Your task to perform on an android device: install app "DoorDash - Food Delivery" Image 0: 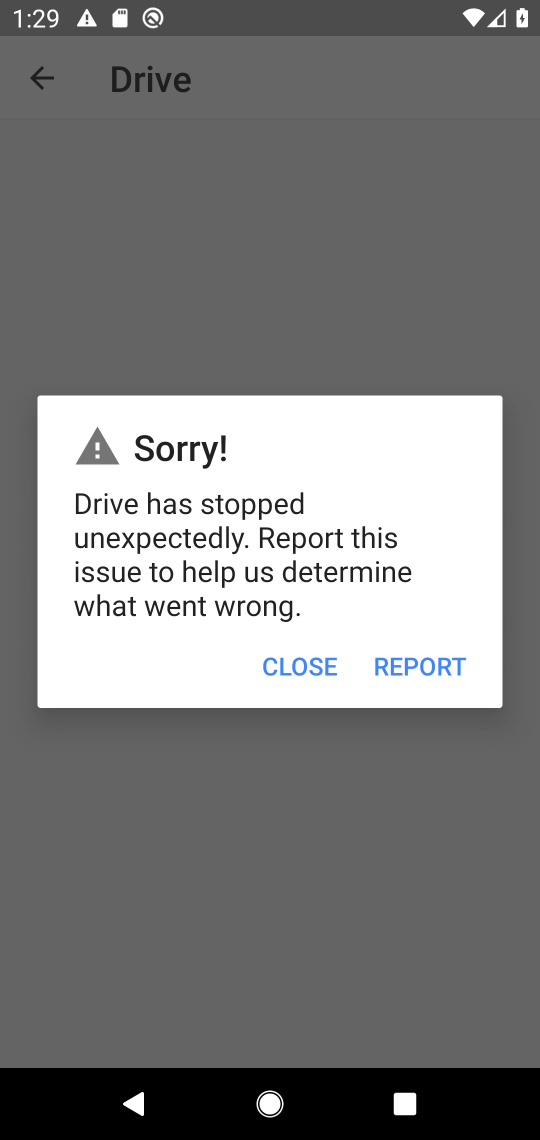
Step 0: press back button
Your task to perform on an android device: install app "DoorDash - Food Delivery" Image 1: 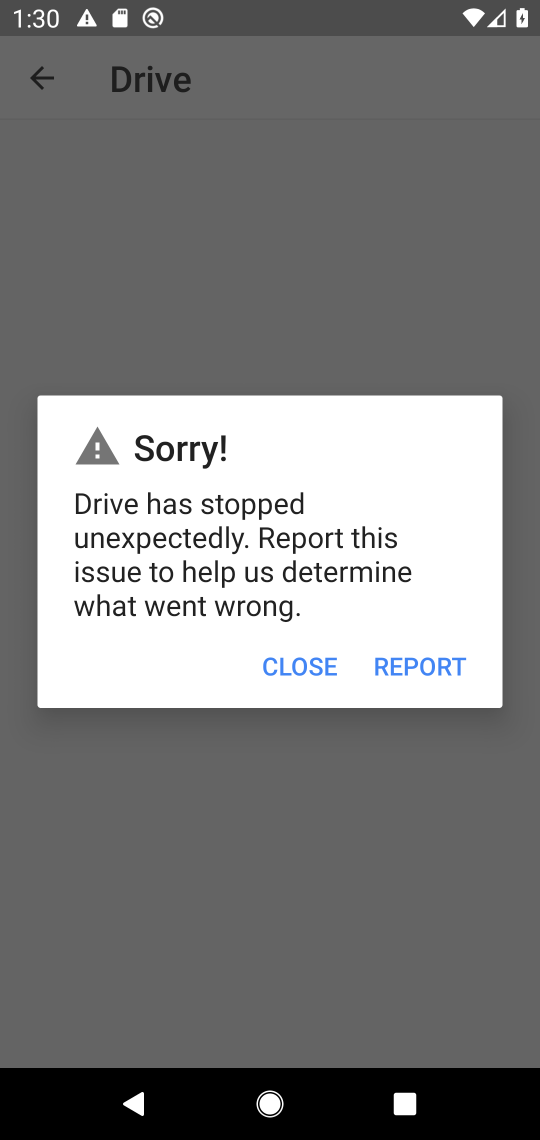
Step 1: press back button
Your task to perform on an android device: install app "DoorDash - Food Delivery" Image 2: 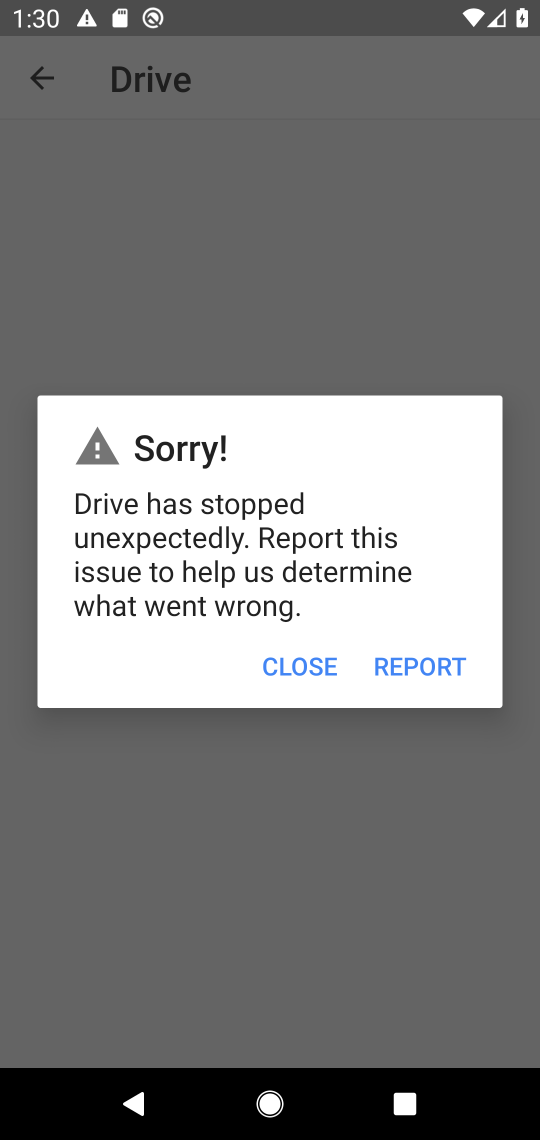
Step 2: press home button
Your task to perform on an android device: install app "DoorDash - Food Delivery" Image 3: 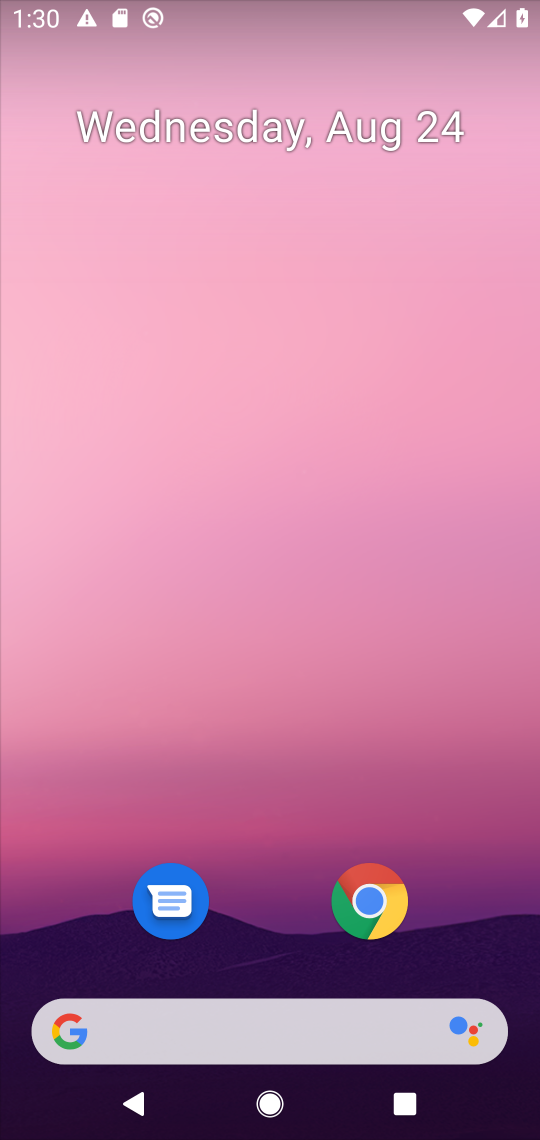
Step 3: drag from (274, 893) to (438, 22)
Your task to perform on an android device: install app "DoorDash - Food Delivery" Image 4: 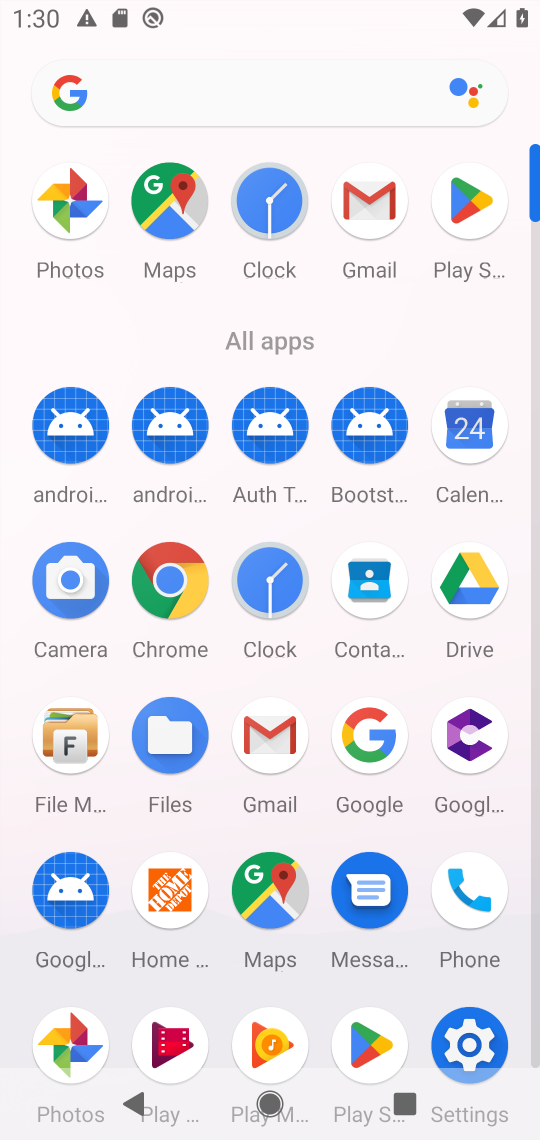
Step 4: click (469, 208)
Your task to perform on an android device: install app "DoorDash - Food Delivery" Image 5: 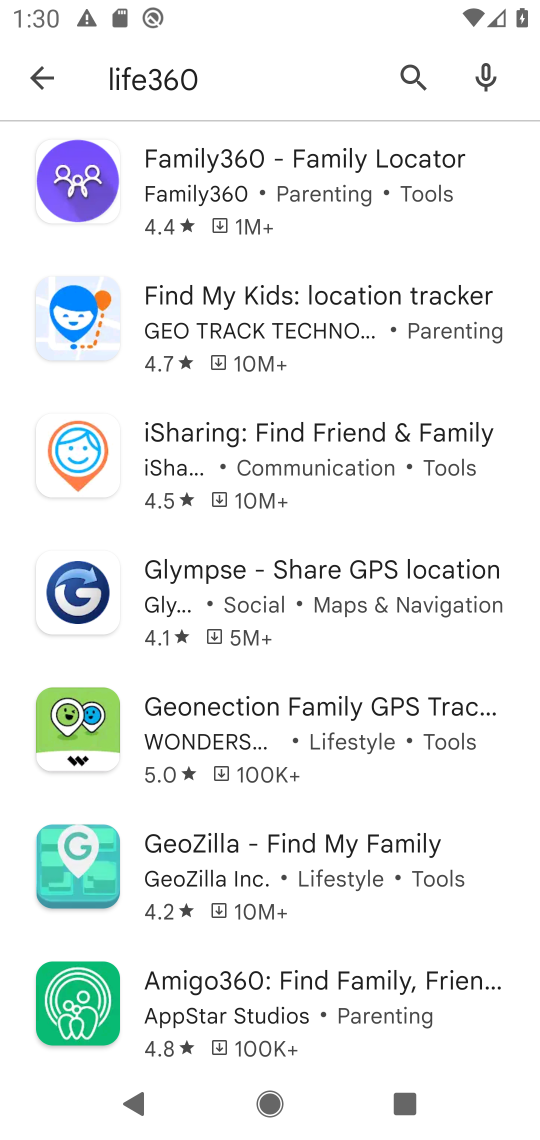
Step 5: click (410, 69)
Your task to perform on an android device: install app "DoorDash - Food Delivery" Image 6: 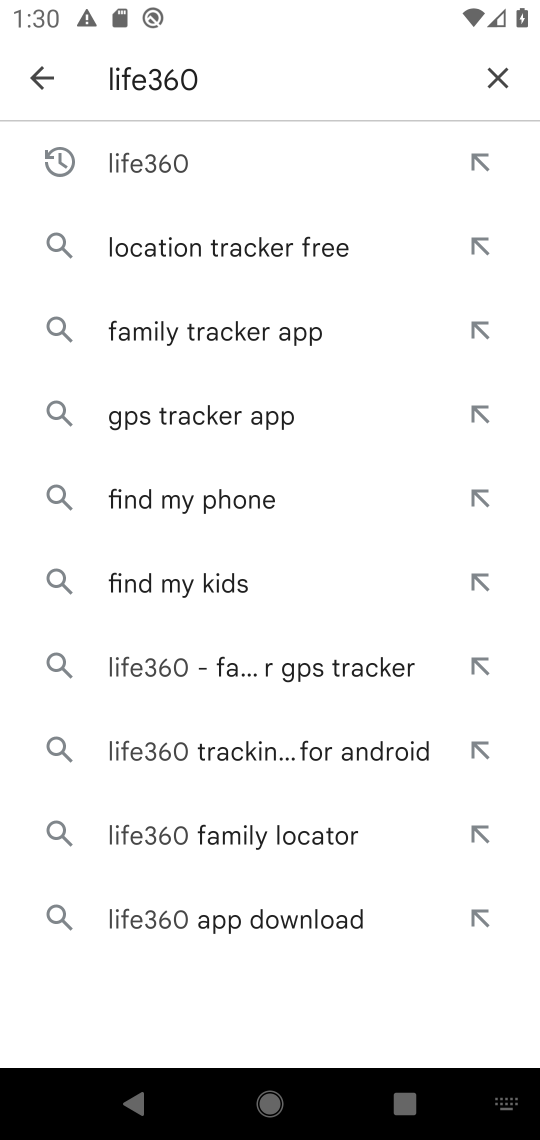
Step 6: click (495, 67)
Your task to perform on an android device: install app "DoorDash - Food Delivery" Image 7: 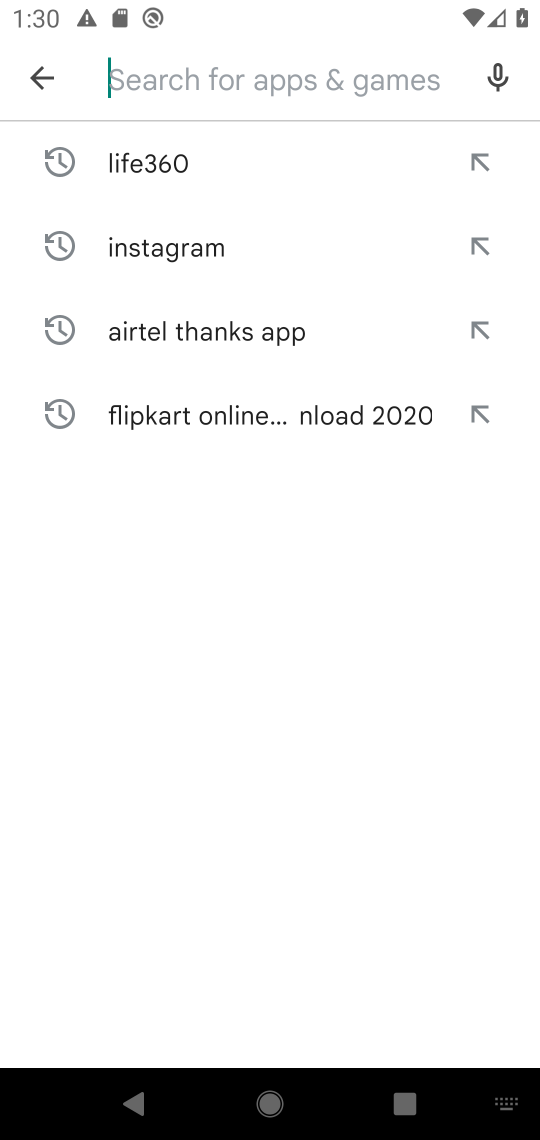
Step 7: click (159, 82)
Your task to perform on an android device: install app "DoorDash - Food Delivery" Image 8: 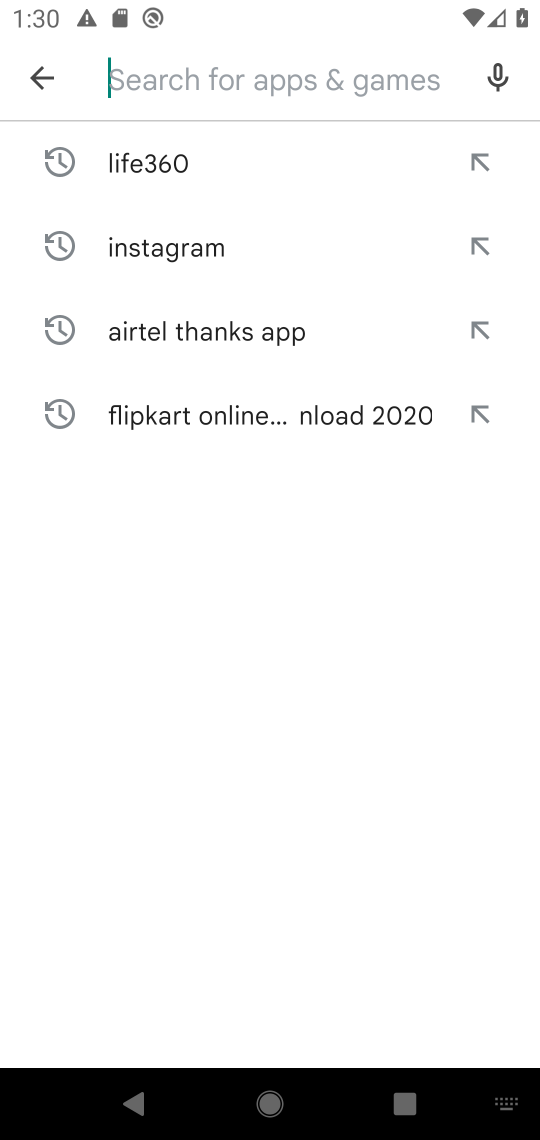
Step 8: type "DoorDash"
Your task to perform on an android device: install app "DoorDash - Food Delivery" Image 9: 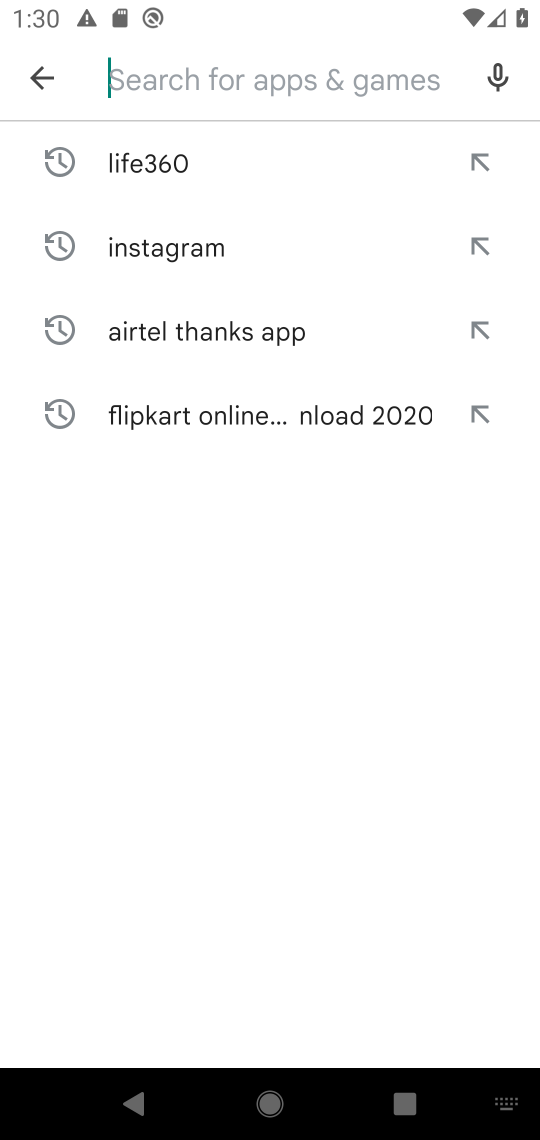
Step 9: click (117, 766)
Your task to perform on an android device: install app "DoorDash - Food Delivery" Image 10: 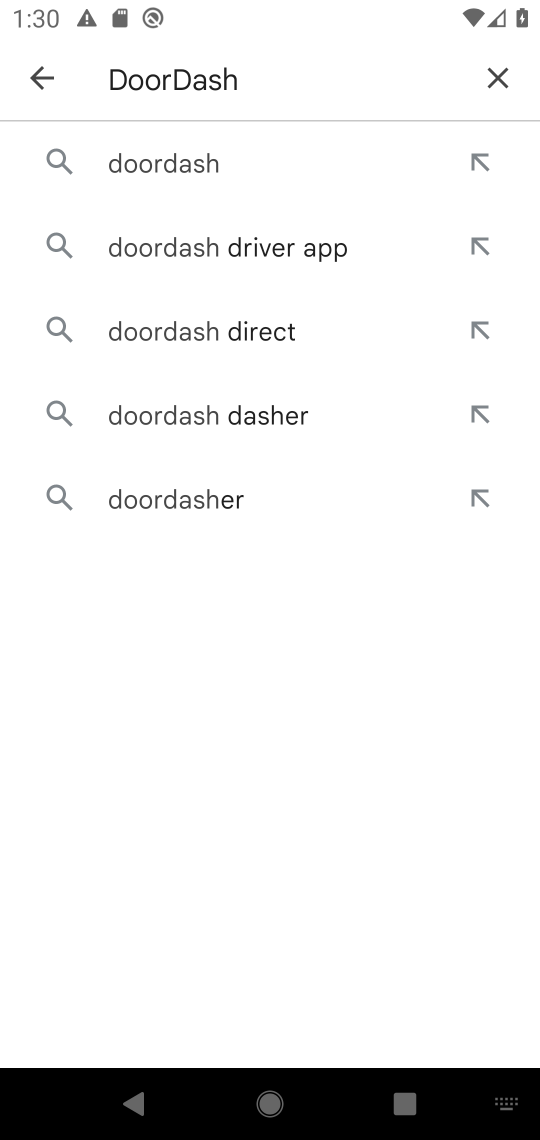
Step 10: click (166, 167)
Your task to perform on an android device: install app "DoorDash - Food Delivery" Image 11: 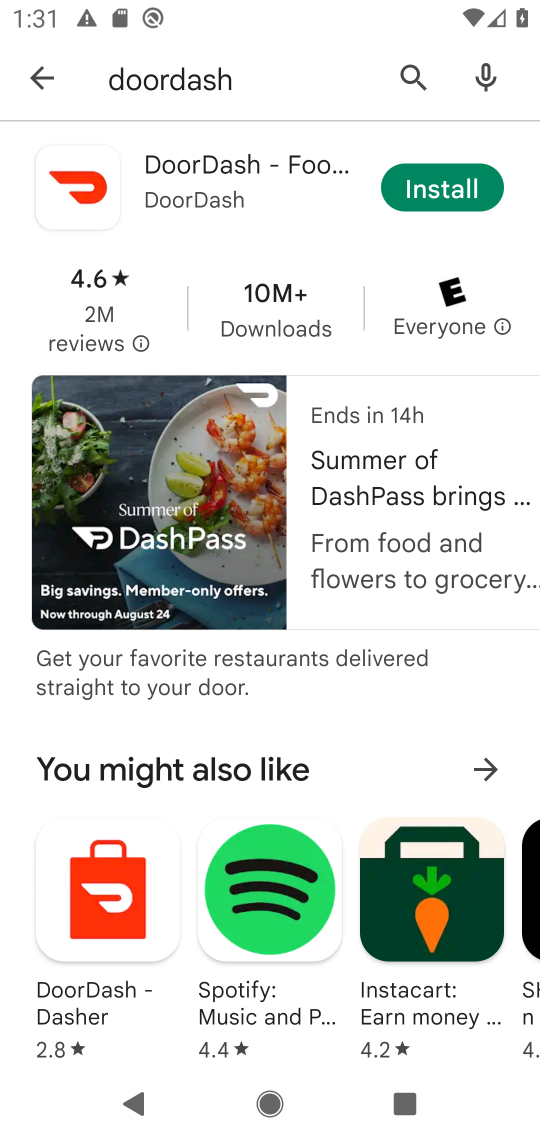
Step 11: click (420, 198)
Your task to perform on an android device: install app "DoorDash - Food Delivery" Image 12: 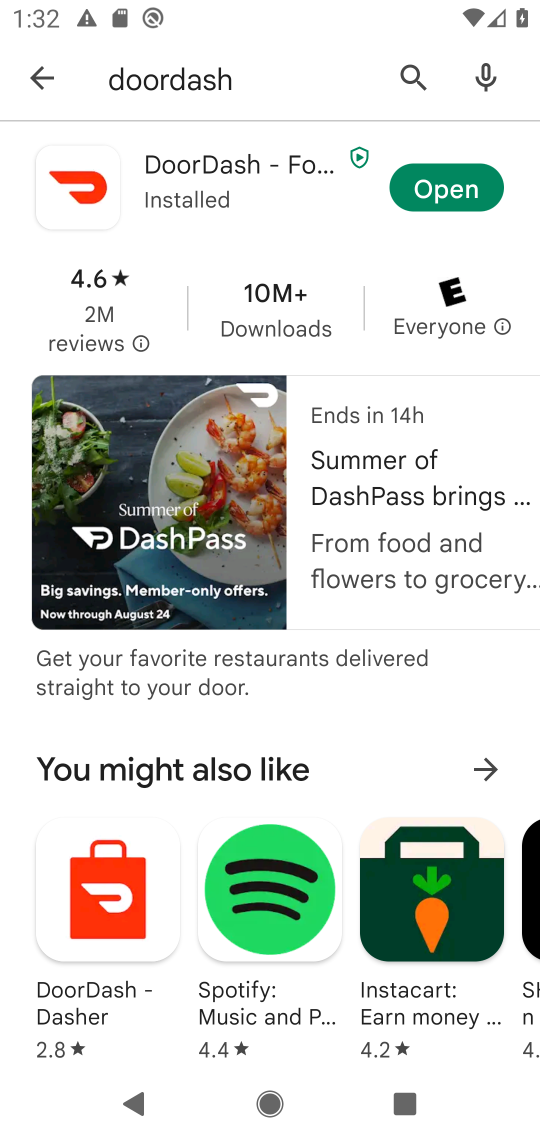
Step 12: task complete